Your task to perform on an android device: toggle priority inbox in the gmail app Image 0: 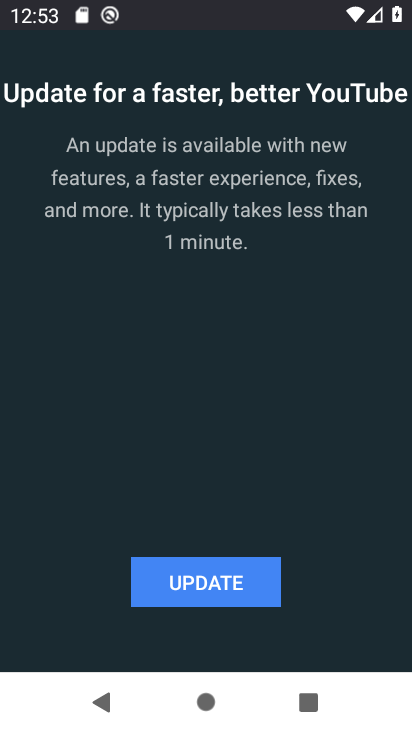
Step 0: press home button
Your task to perform on an android device: toggle priority inbox in the gmail app Image 1: 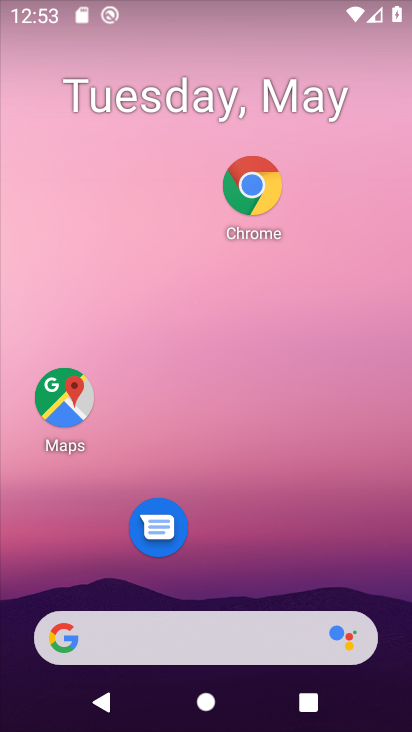
Step 1: drag from (259, 511) to (144, 4)
Your task to perform on an android device: toggle priority inbox in the gmail app Image 2: 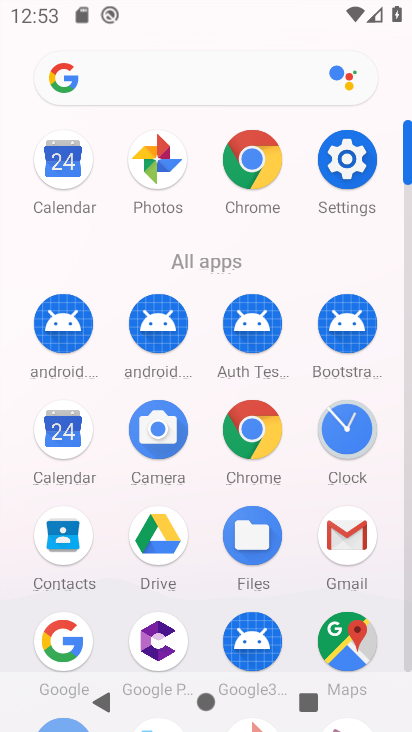
Step 2: click (336, 543)
Your task to perform on an android device: toggle priority inbox in the gmail app Image 3: 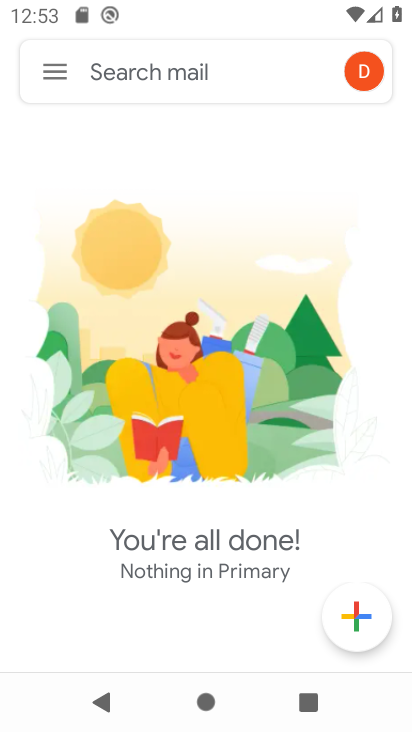
Step 3: click (53, 63)
Your task to perform on an android device: toggle priority inbox in the gmail app Image 4: 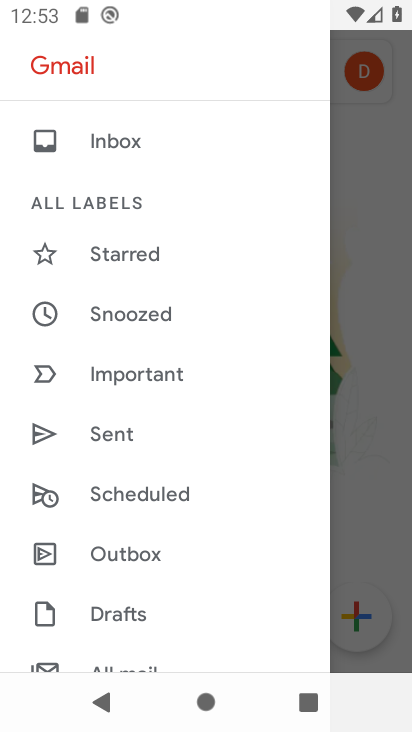
Step 4: drag from (155, 600) to (158, 204)
Your task to perform on an android device: toggle priority inbox in the gmail app Image 5: 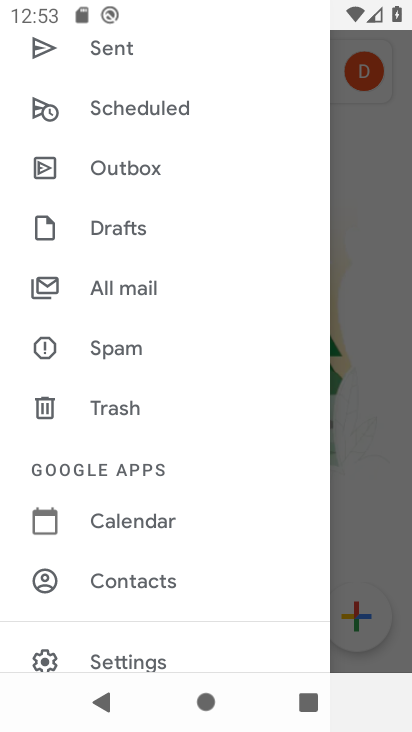
Step 5: drag from (197, 570) to (171, 115)
Your task to perform on an android device: toggle priority inbox in the gmail app Image 6: 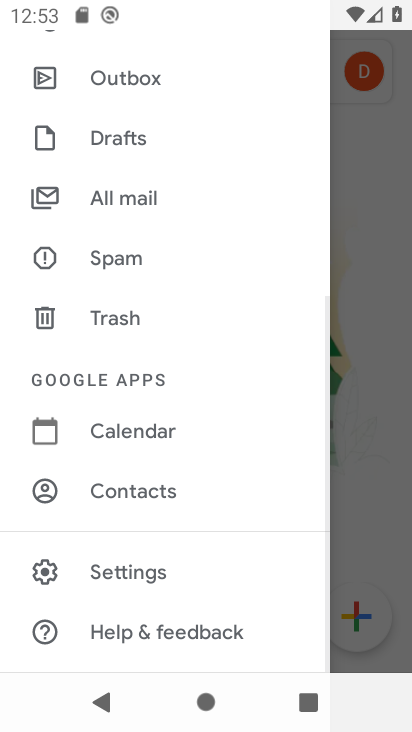
Step 6: click (113, 569)
Your task to perform on an android device: toggle priority inbox in the gmail app Image 7: 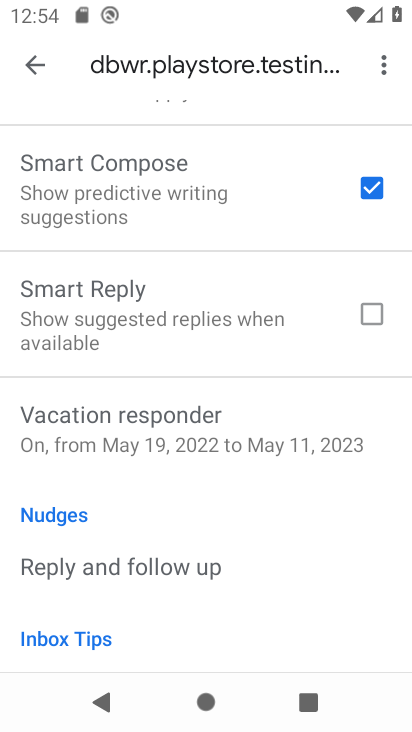
Step 7: drag from (143, 150) to (142, 542)
Your task to perform on an android device: toggle priority inbox in the gmail app Image 8: 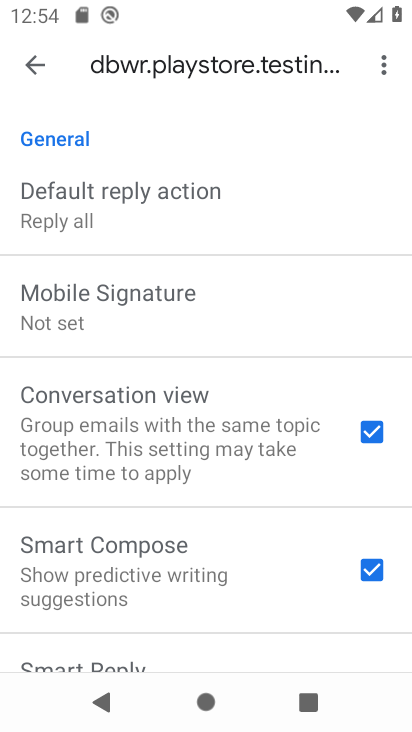
Step 8: drag from (223, 186) to (226, 642)
Your task to perform on an android device: toggle priority inbox in the gmail app Image 9: 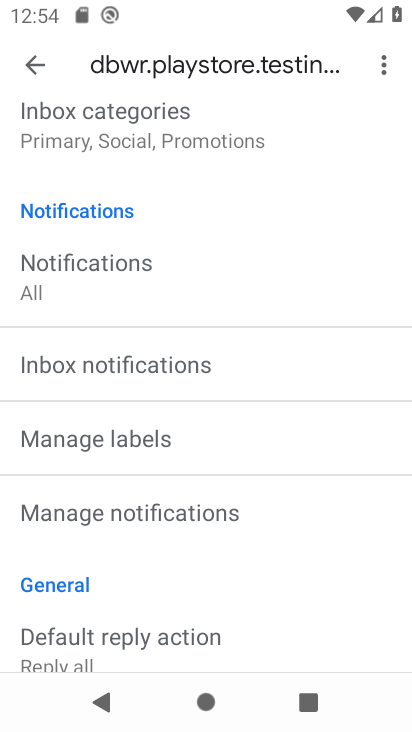
Step 9: drag from (186, 226) to (182, 618)
Your task to perform on an android device: toggle priority inbox in the gmail app Image 10: 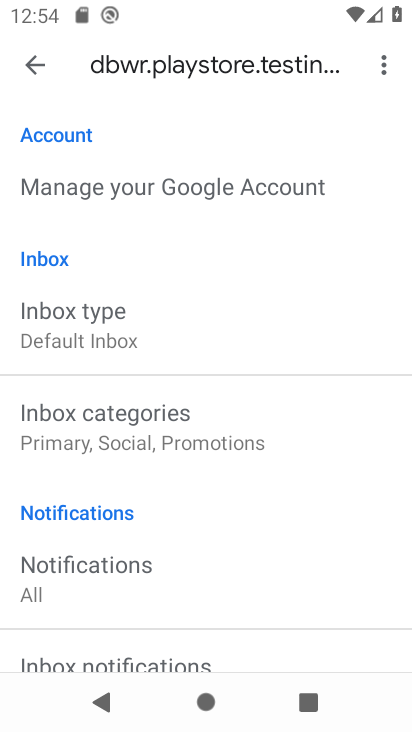
Step 10: click (72, 308)
Your task to perform on an android device: toggle priority inbox in the gmail app Image 11: 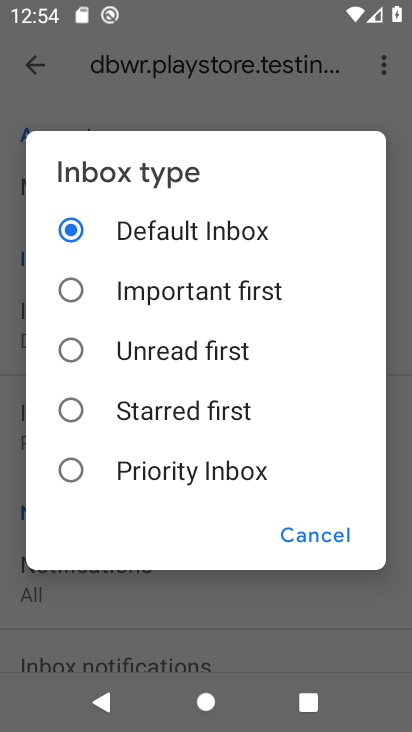
Step 11: click (71, 464)
Your task to perform on an android device: toggle priority inbox in the gmail app Image 12: 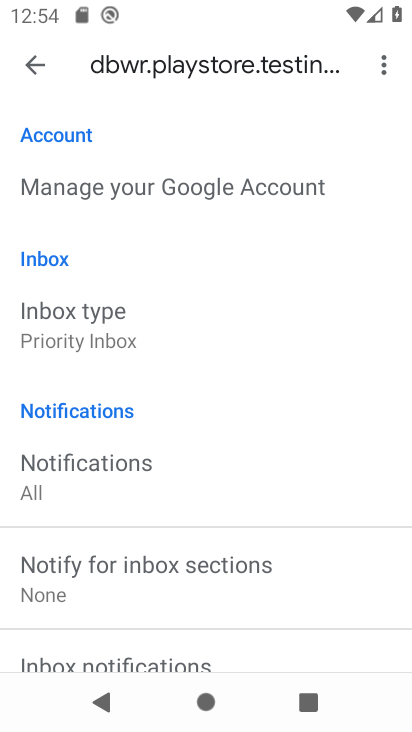
Step 12: task complete